Your task to perform on an android device: Set the phone to "Do not disturb". Image 0: 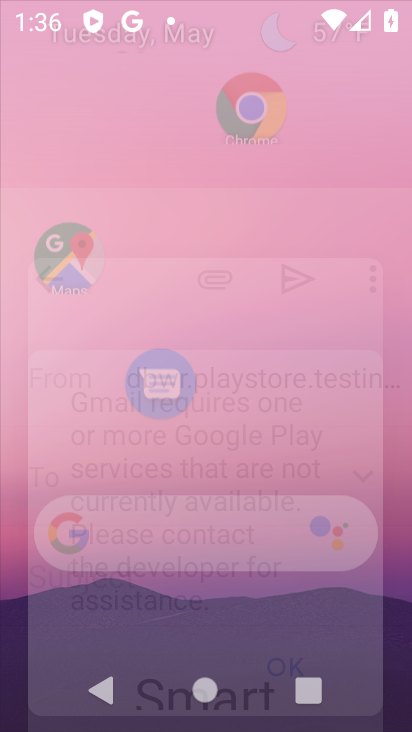
Step 0: drag from (238, 138) to (162, 0)
Your task to perform on an android device: Set the phone to "Do not disturb". Image 1: 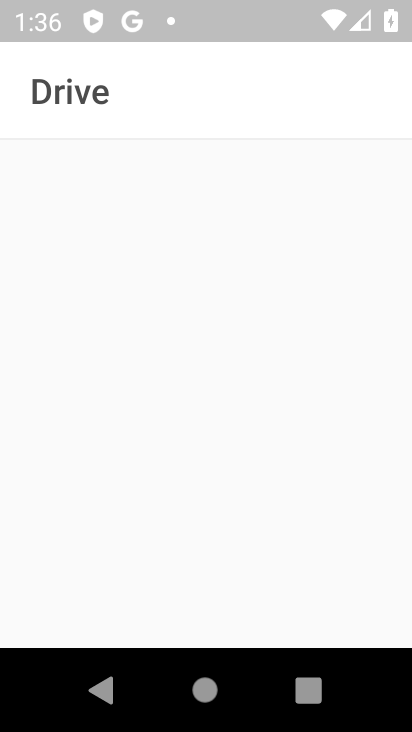
Step 1: press home button
Your task to perform on an android device: Set the phone to "Do not disturb". Image 2: 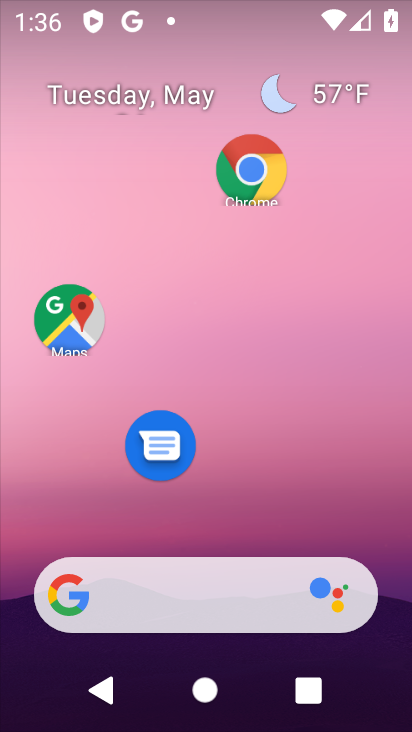
Step 2: drag from (237, 721) to (233, 94)
Your task to perform on an android device: Set the phone to "Do not disturb". Image 3: 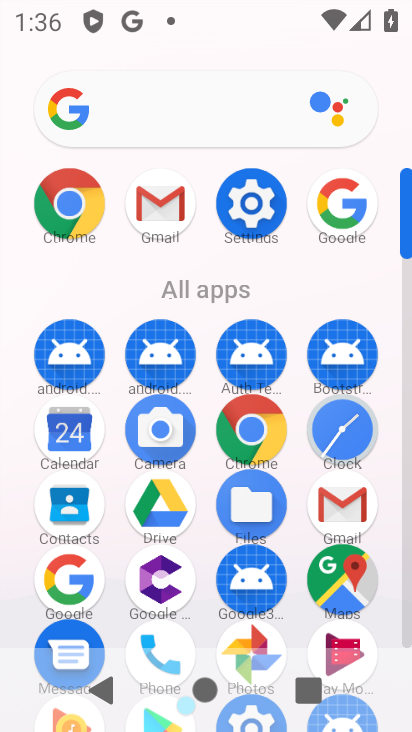
Step 3: click (254, 206)
Your task to perform on an android device: Set the phone to "Do not disturb". Image 4: 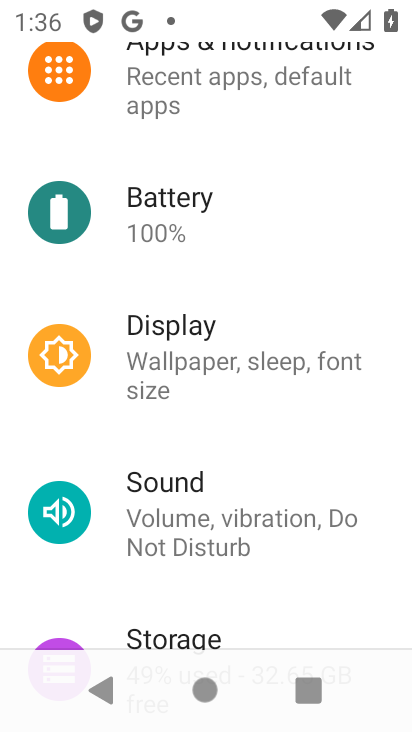
Step 4: click (214, 512)
Your task to perform on an android device: Set the phone to "Do not disturb". Image 5: 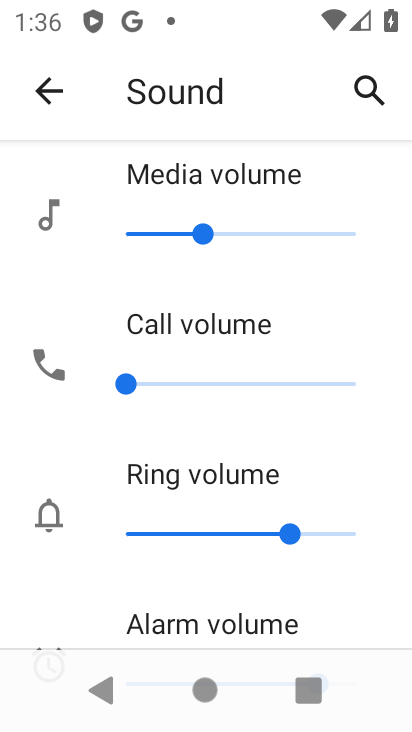
Step 5: drag from (70, 619) to (76, 227)
Your task to perform on an android device: Set the phone to "Do not disturb". Image 6: 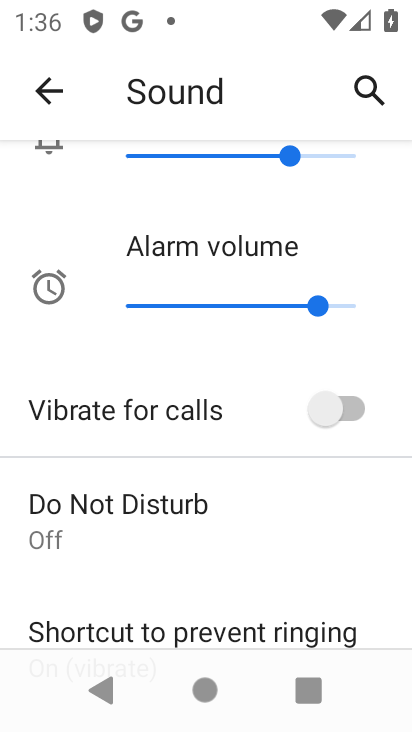
Step 6: click (109, 501)
Your task to perform on an android device: Set the phone to "Do not disturb". Image 7: 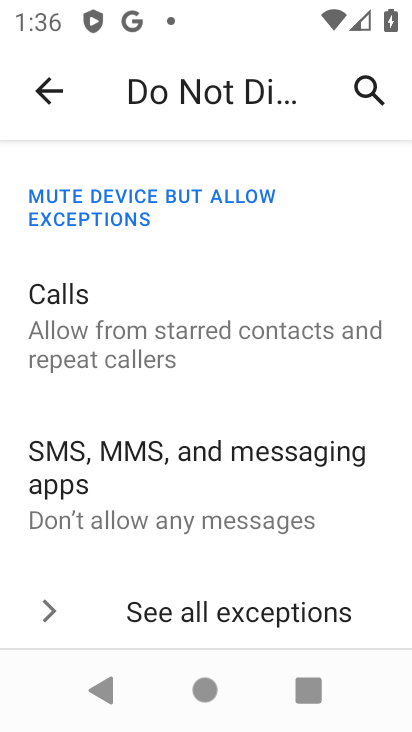
Step 7: drag from (222, 583) to (218, 267)
Your task to perform on an android device: Set the phone to "Do not disturb". Image 8: 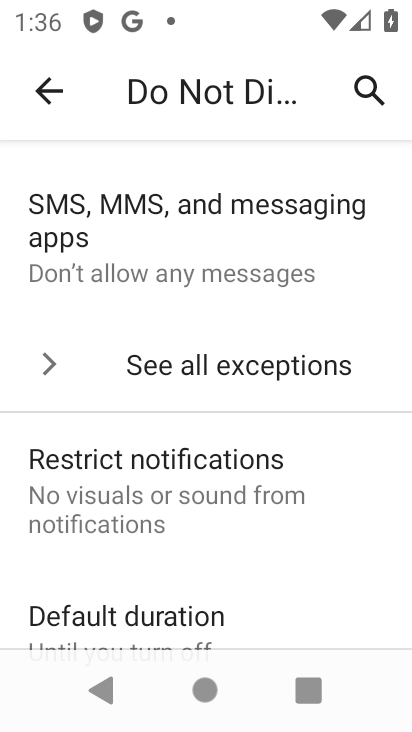
Step 8: drag from (219, 591) to (230, 233)
Your task to perform on an android device: Set the phone to "Do not disturb". Image 9: 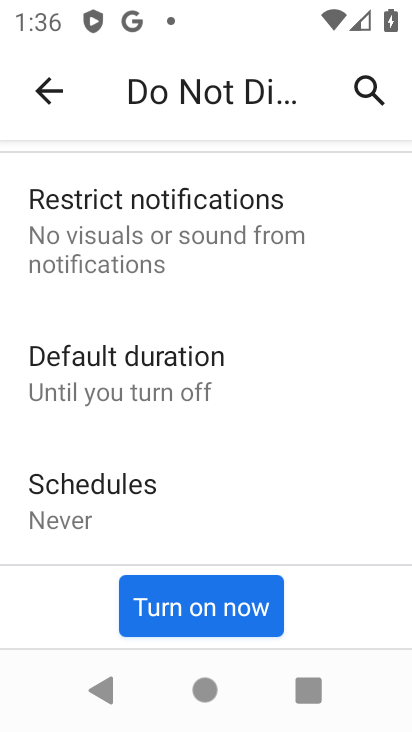
Step 9: click (207, 592)
Your task to perform on an android device: Set the phone to "Do not disturb". Image 10: 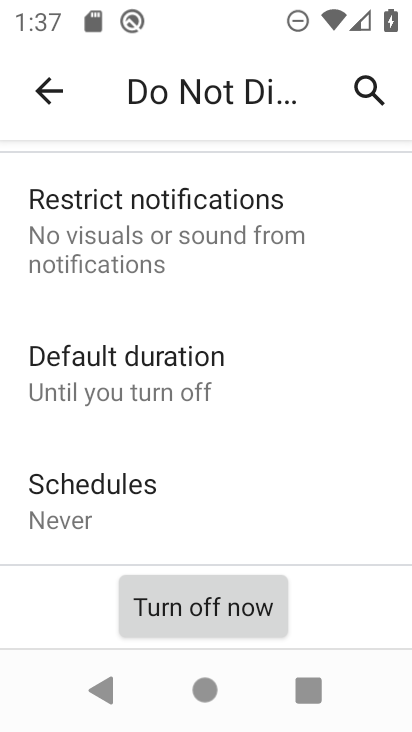
Step 10: task complete